Your task to perform on an android device: Open wifi settings Image 0: 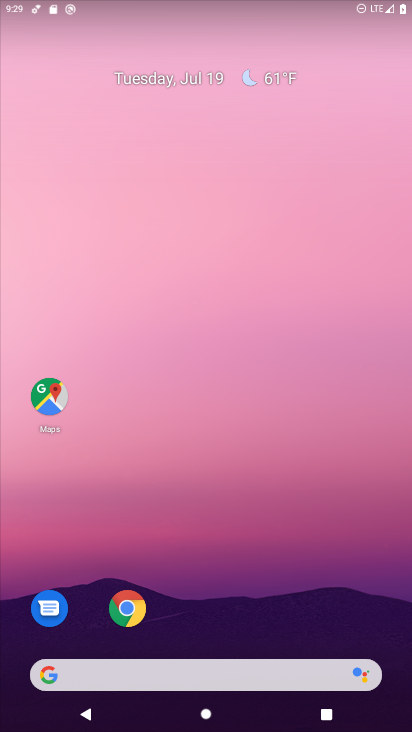
Step 0: drag from (242, 585) to (191, 28)
Your task to perform on an android device: Open wifi settings Image 1: 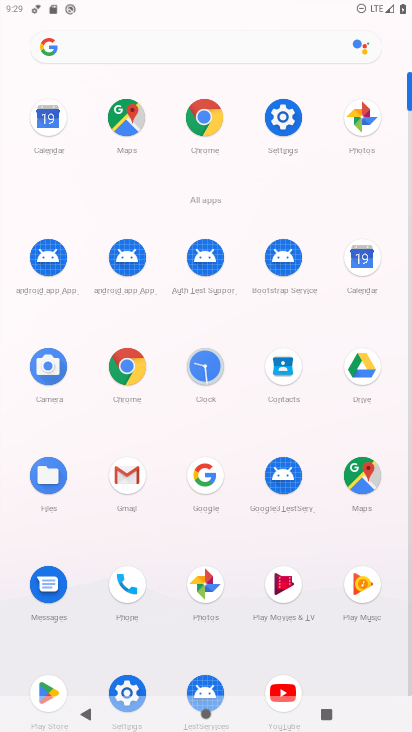
Step 1: click (279, 117)
Your task to perform on an android device: Open wifi settings Image 2: 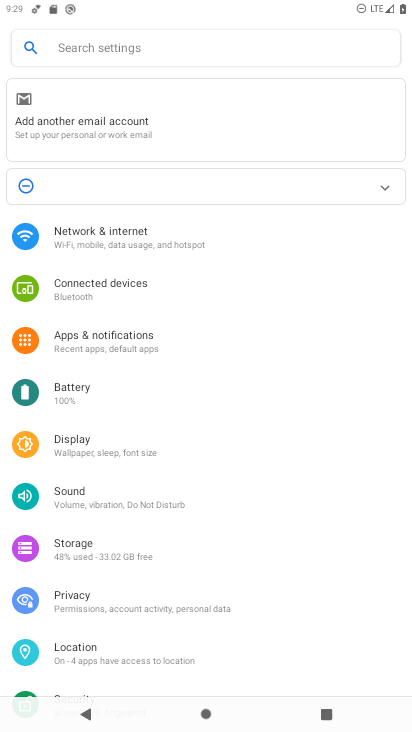
Step 2: click (112, 227)
Your task to perform on an android device: Open wifi settings Image 3: 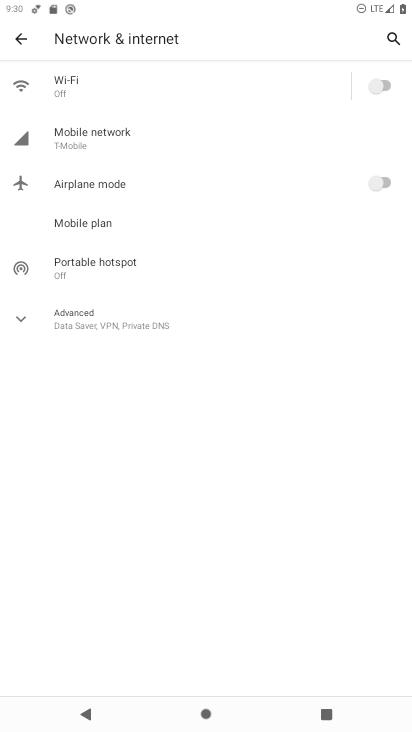
Step 3: click (83, 80)
Your task to perform on an android device: Open wifi settings Image 4: 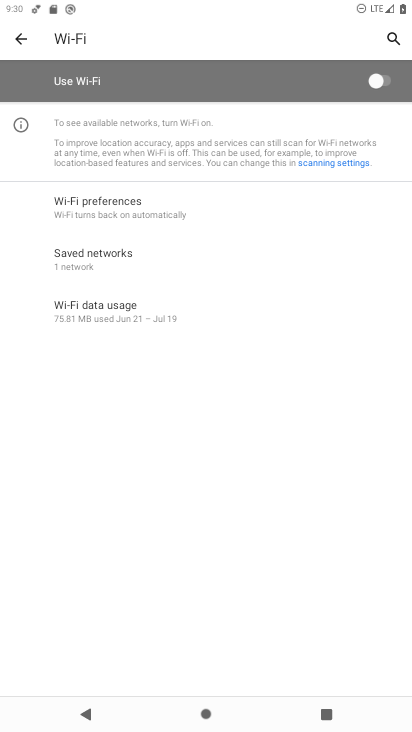
Step 4: task complete